Your task to perform on an android device: Go to CNN.com Image 0: 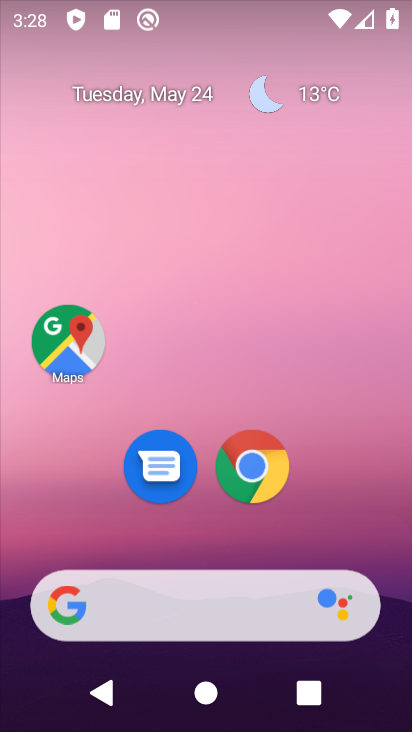
Step 0: click (262, 469)
Your task to perform on an android device: Go to CNN.com Image 1: 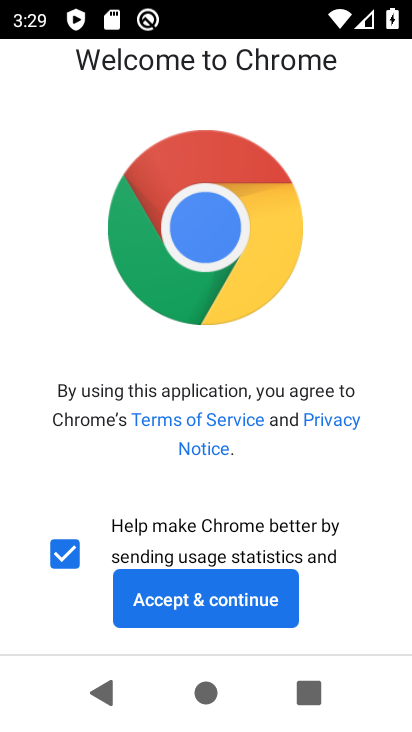
Step 1: click (195, 598)
Your task to perform on an android device: Go to CNN.com Image 2: 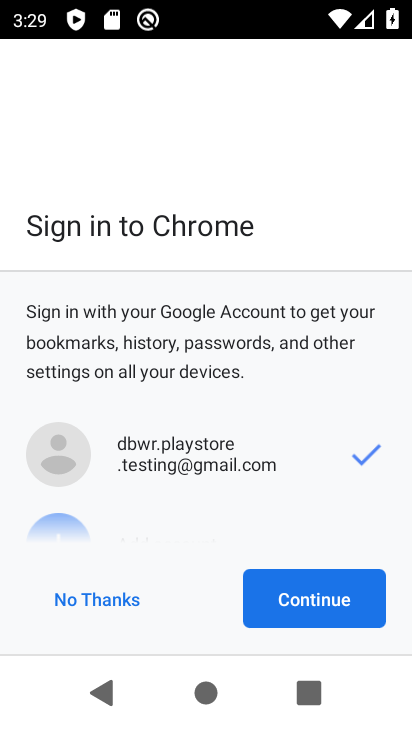
Step 2: click (290, 610)
Your task to perform on an android device: Go to CNN.com Image 3: 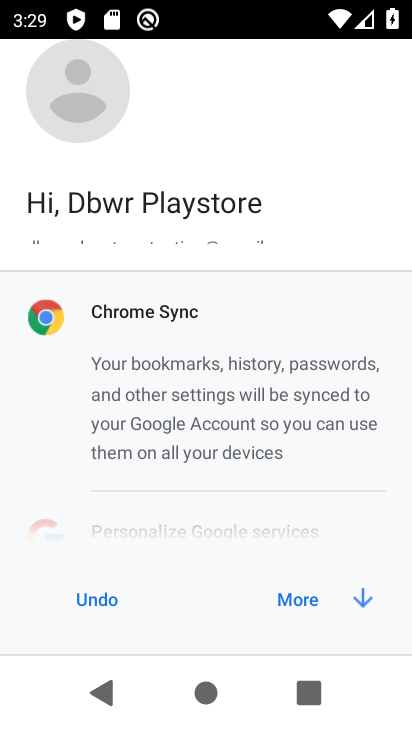
Step 3: click (312, 611)
Your task to perform on an android device: Go to CNN.com Image 4: 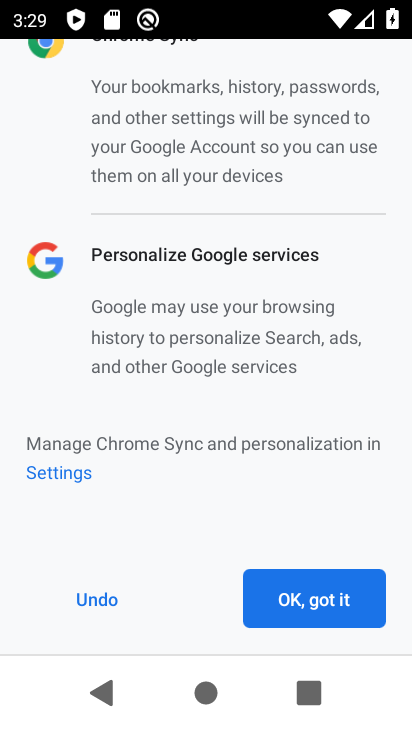
Step 4: click (310, 610)
Your task to perform on an android device: Go to CNN.com Image 5: 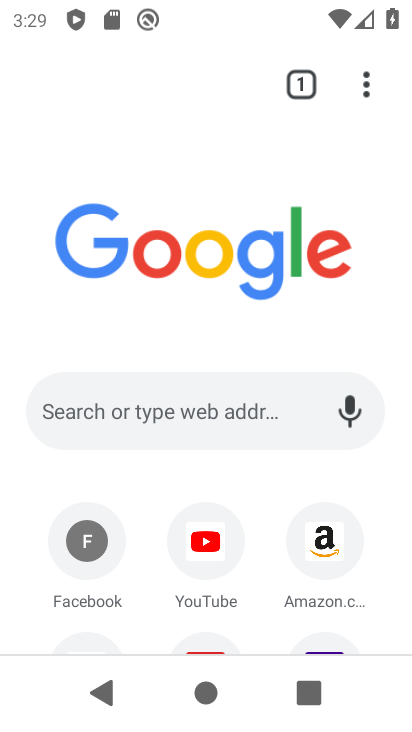
Step 5: drag from (248, 354) to (254, 254)
Your task to perform on an android device: Go to CNN.com Image 6: 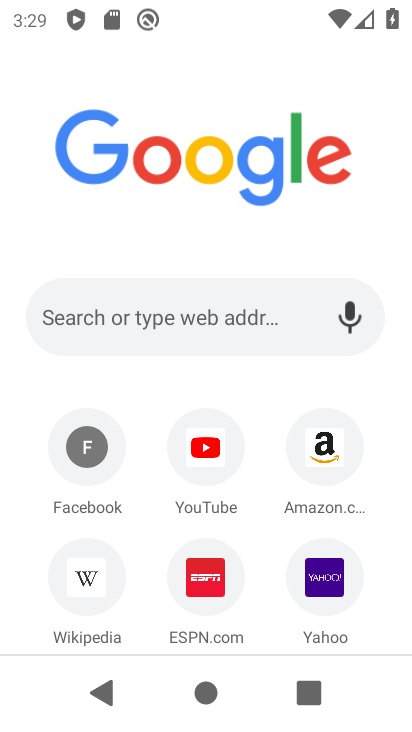
Step 6: click (238, 322)
Your task to perform on an android device: Go to CNN.com Image 7: 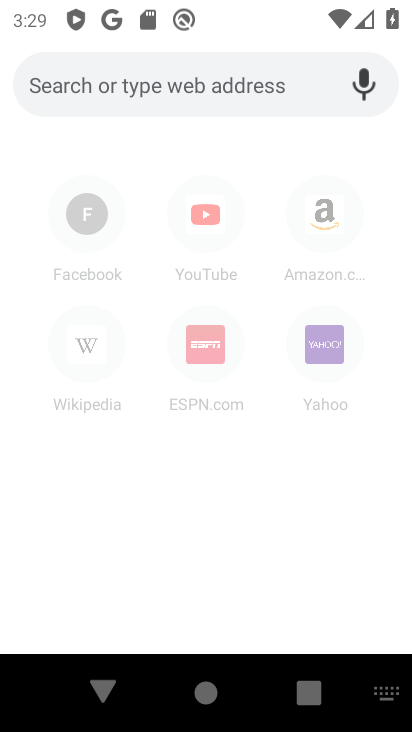
Step 7: type "cnn.com"
Your task to perform on an android device: Go to CNN.com Image 8: 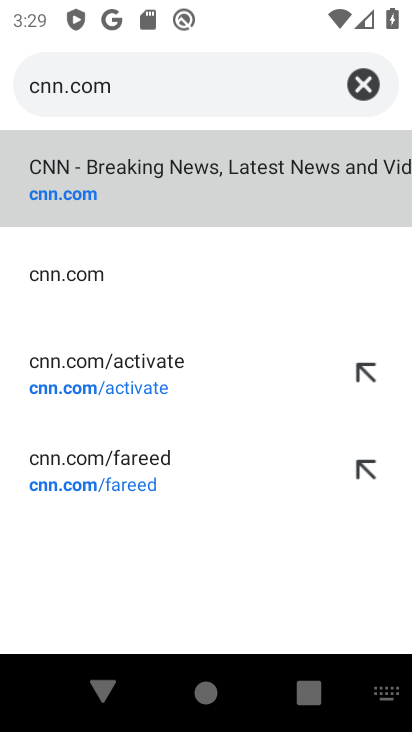
Step 8: click (81, 192)
Your task to perform on an android device: Go to CNN.com Image 9: 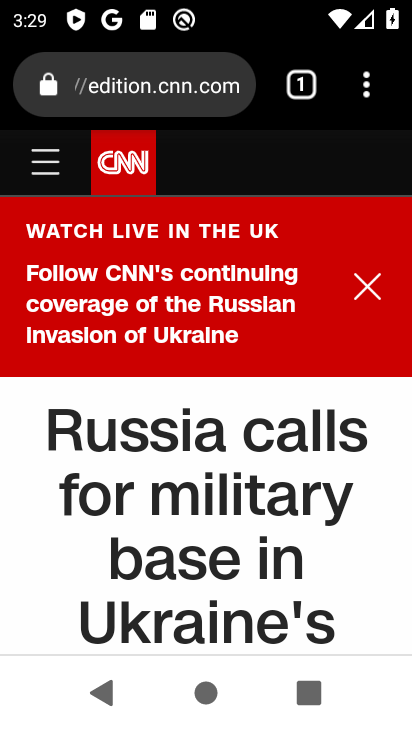
Step 9: task complete